Your task to perform on an android device: turn on wifi Image 0: 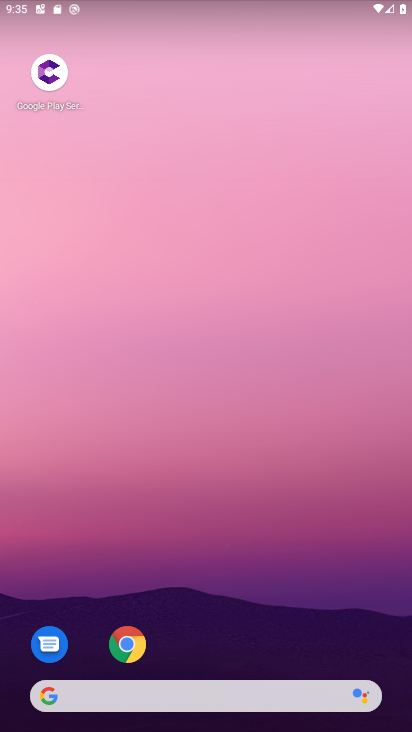
Step 0: drag from (287, 575) to (282, 16)
Your task to perform on an android device: turn on wifi Image 1: 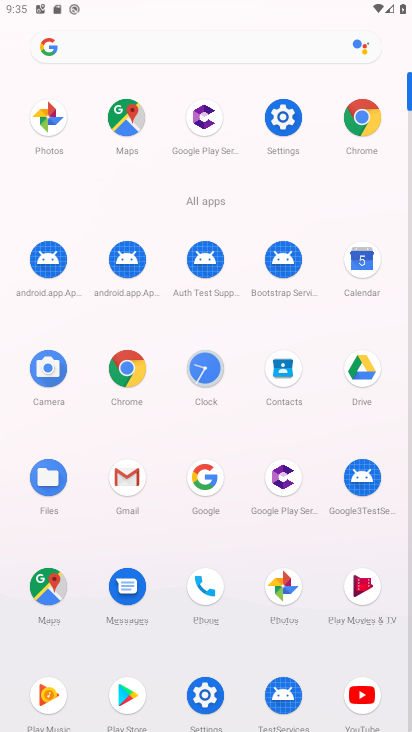
Step 1: click (279, 108)
Your task to perform on an android device: turn on wifi Image 2: 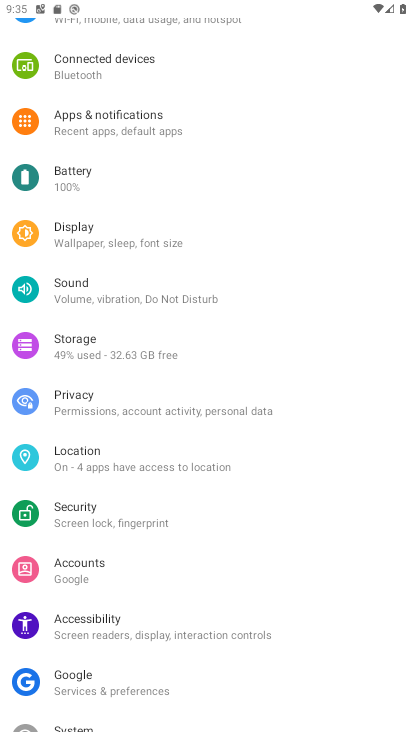
Step 2: drag from (288, 145) to (309, 586)
Your task to perform on an android device: turn on wifi Image 3: 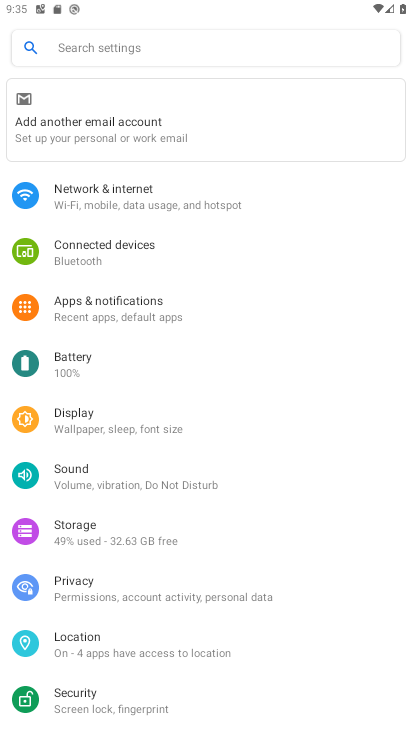
Step 3: click (210, 201)
Your task to perform on an android device: turn on wifi Image 4: 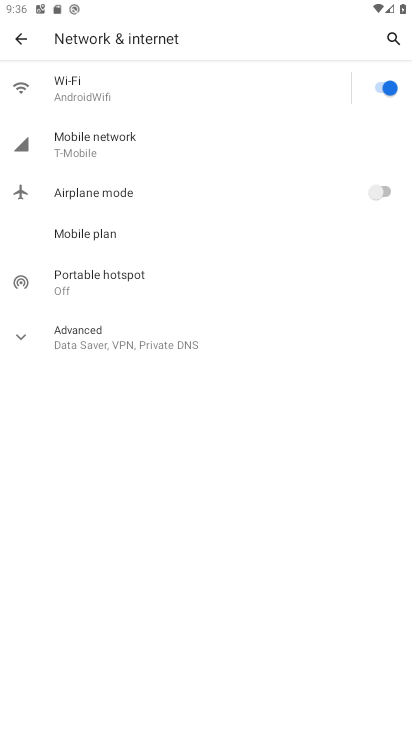
Step 4: task complete